Your task to perform on an android device: see sites visited before in the chrome app Image 0: 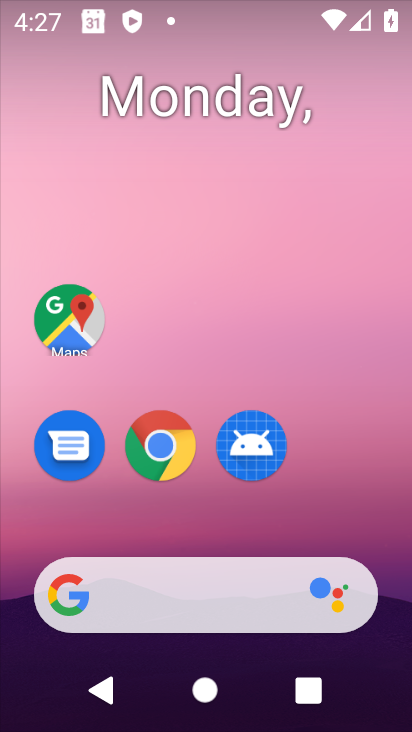
Step 0: click (147, 453)
Your task to perform on an android device: see sites visited before in the chrome app Image 1: 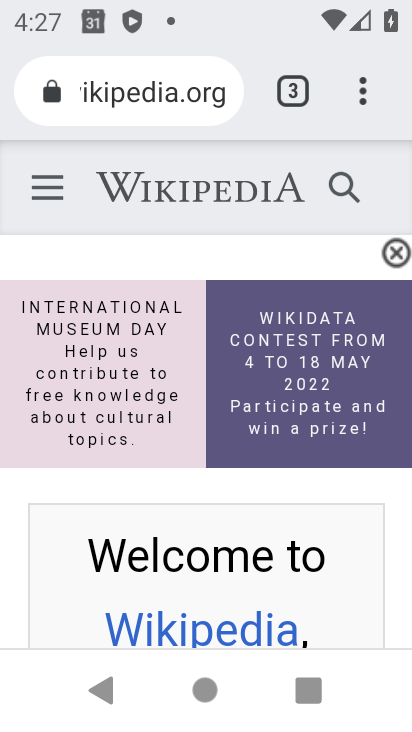
Step 1: task complete